Your task to perform on an android device: What's the weather? Image 0: 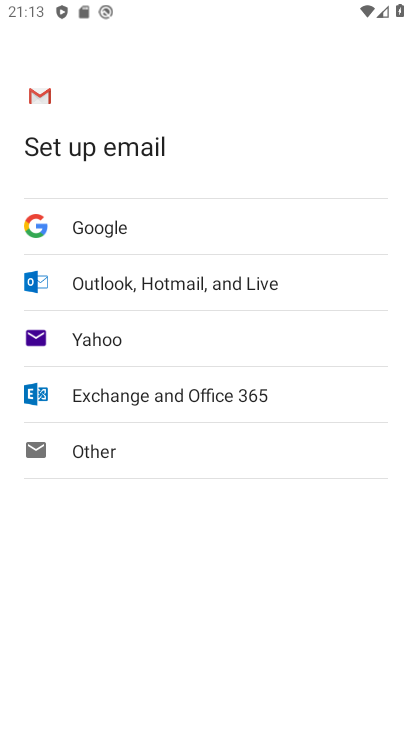
Step 0: press home button
Your task to perform on an android device: What's the weather? Image 1: 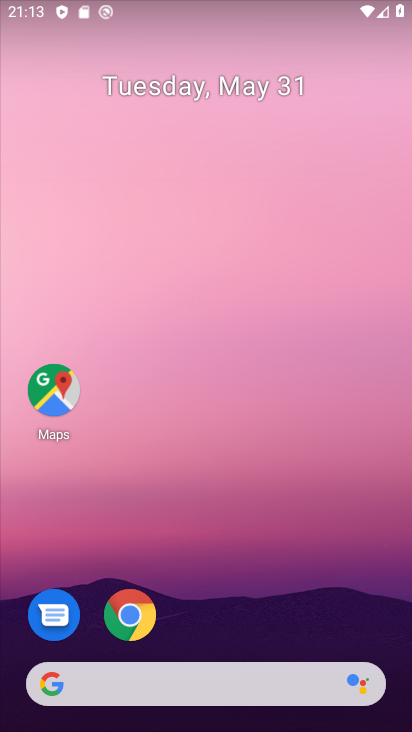
Step 1: click (240, 682)
Your task to perform on an android device: What's the weather? Image 2: 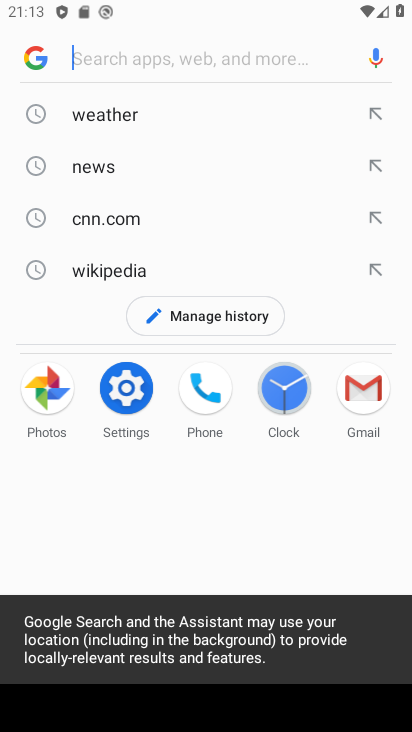
Step 2: click (118, 111)
Your task to perform on an android device: What's the weather? Image 3: 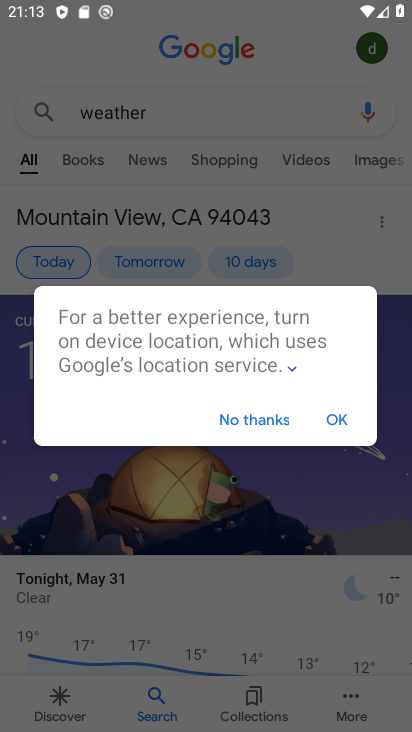
Step 3: click (239, 421)
Your task to perform on an android device: What's the weather? Image 4: 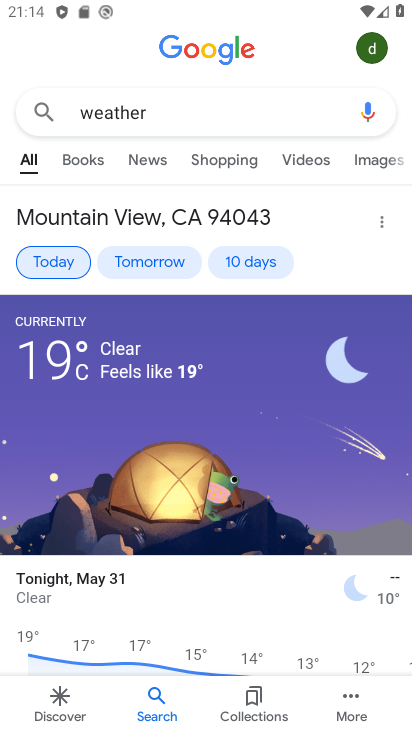
Step 4: task complete